Your task to perform on an android device: What's the news in Nepal? Image 0: 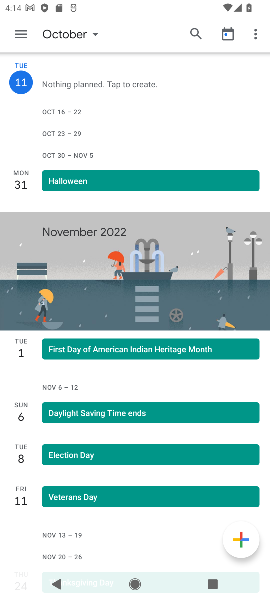
Step 0: press home button
Your task to perform on an android device: What's the news in Nepal? Image 1: 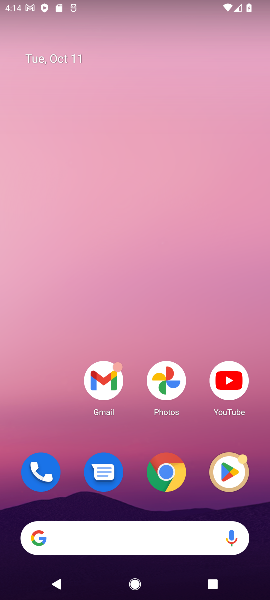
Step 1: click (103, 544)
Your task to perform on an android device: What's the news in Nepal? Image 2: 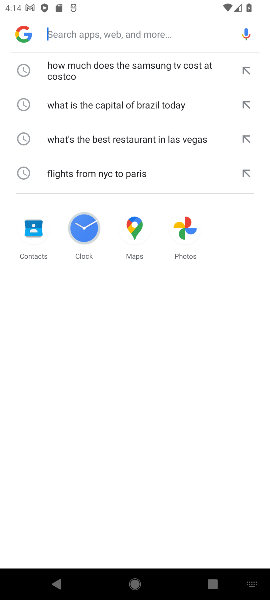
Step 2: type "What's the news in Nepal?"
Your task to perform on an android device: What's the news in Nepal? Image 3: 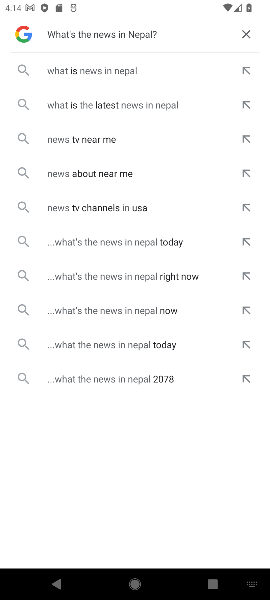
Step 3: click (82, 77)
Your task to perform on an android device: What's the news in Nepal? Image 4: 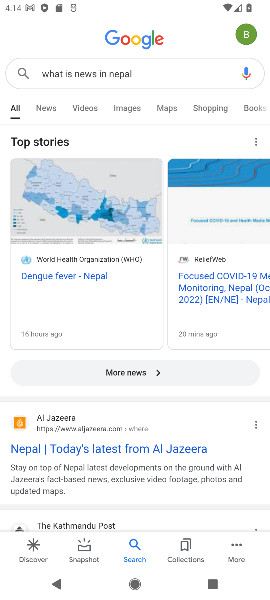
Step 4: task complete